Your task to perform on an android device: Open Yahoo.com Image 0: 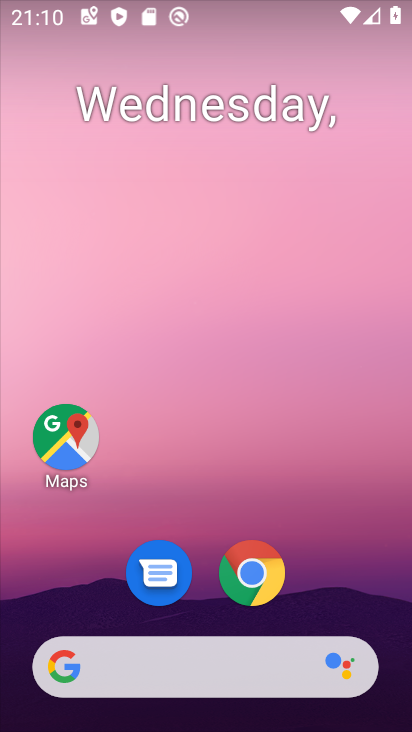
Step 0: click (250, 566)
Your task to perform on an android device: Open Yahoo.com Image 1: 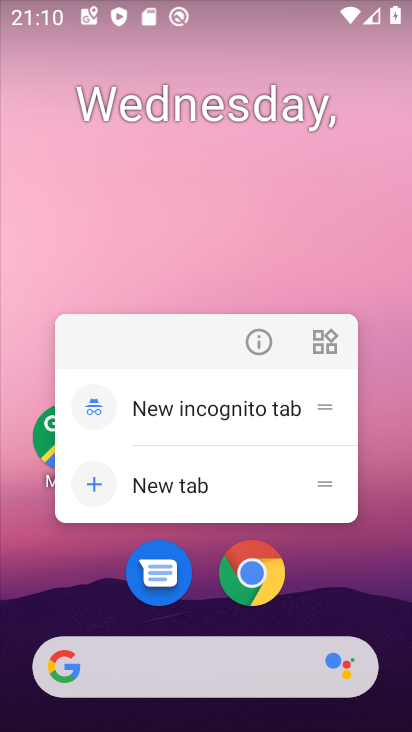
Step 1: click (248, 557)
Your task to perform on an android device: Open Yahoo.com Image 2: 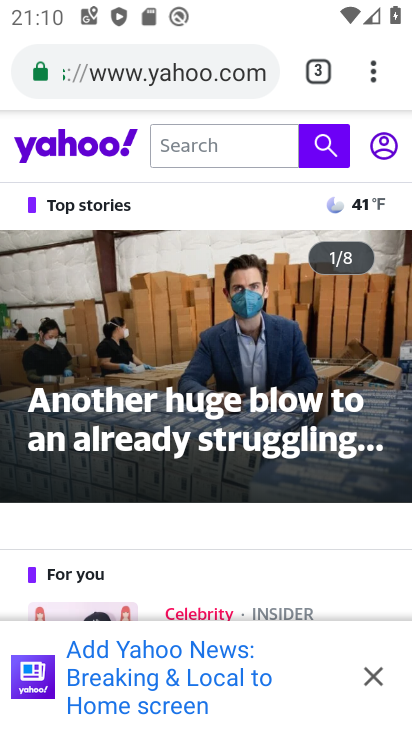
Step 2: task complete